Your task to perform on an android device: What is the recent news? Image 0: 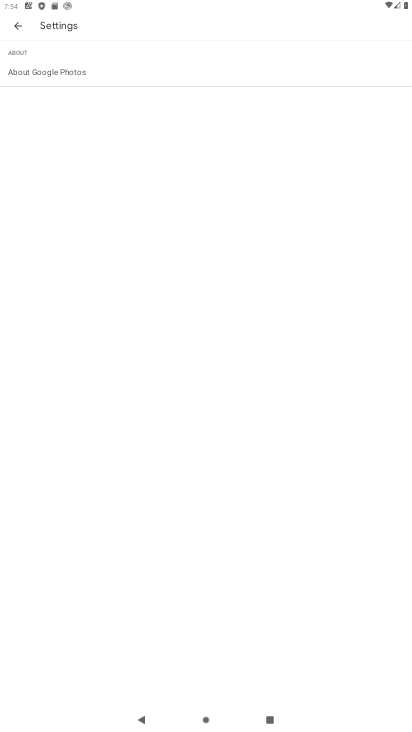
Step 0: click (16, 26)
Your task to perform on an android device: What is the recent news? Image 1: 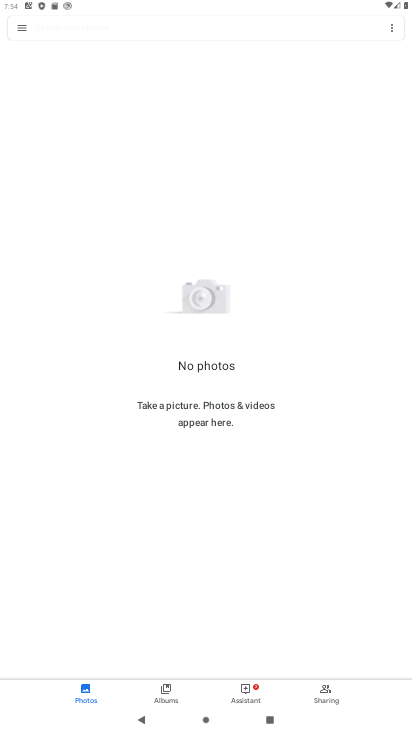
Step 1: click (19, 33)
Your task to perform on an android device: What is the recent news? Image 2: 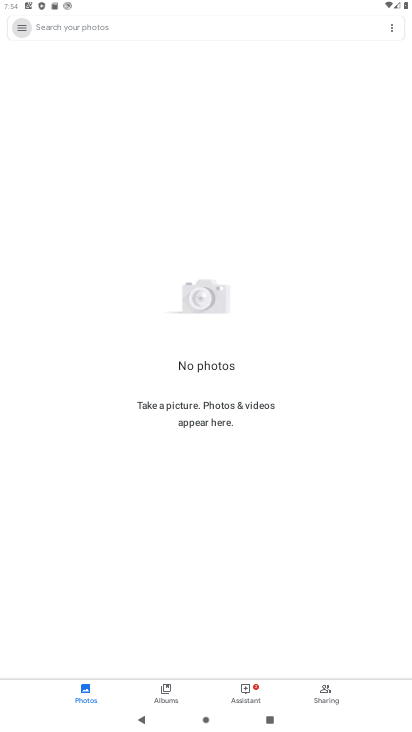
Step 2: click (19, 33)
Your task to perform on an android device: What is the recent news? Image 3: 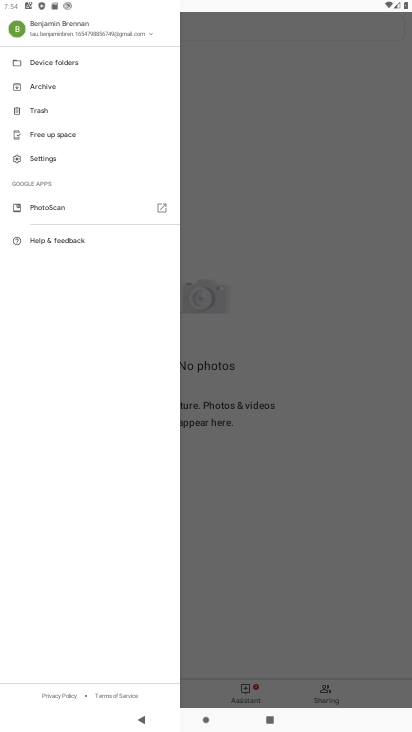
Step 3: press back button
Your task to perform on an android device: What is the recent news? Image 4: 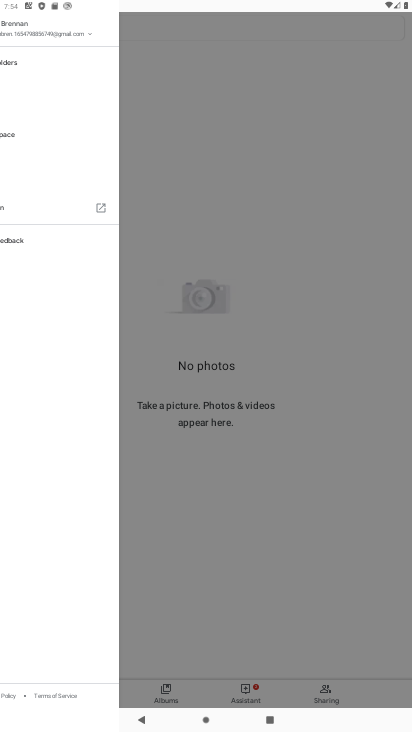
Step 4: press back button
Your task to perform on an android device: What is the recent news? Image 5: 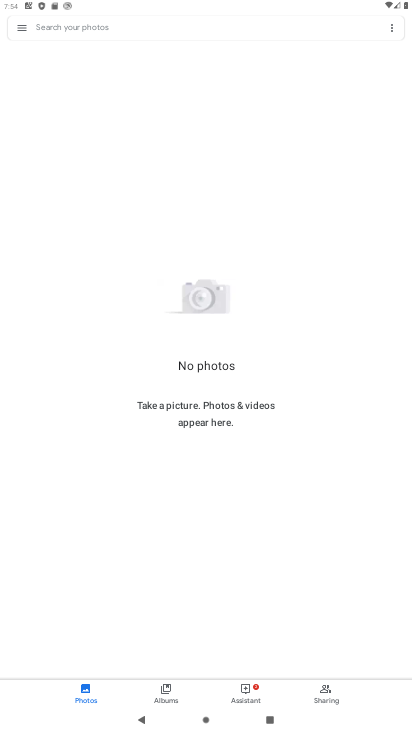
Step 5: press back button
Your task to perform on an android device: What is the recent news? Image 6: 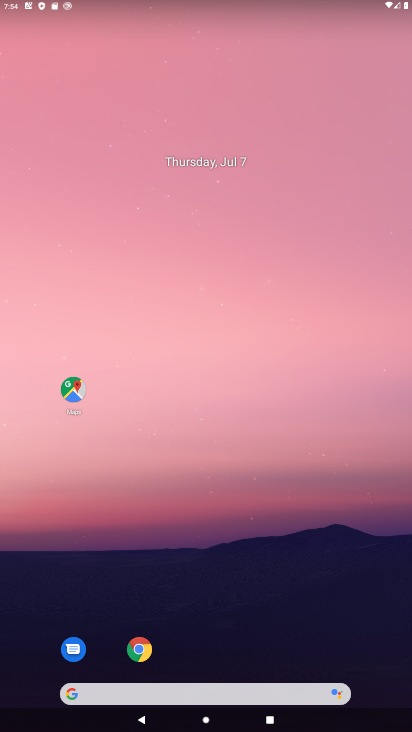
Step 6: drag from (234, 667) to (143, 17)
Your task to perform on an android device: What is the recent news? Image 7: 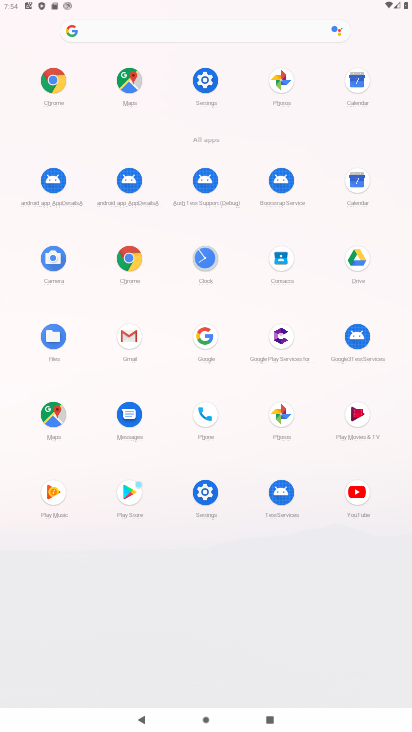
Step 7: click (131, 265)
Your task to perform on an android device: What is the recent news? Image 8: 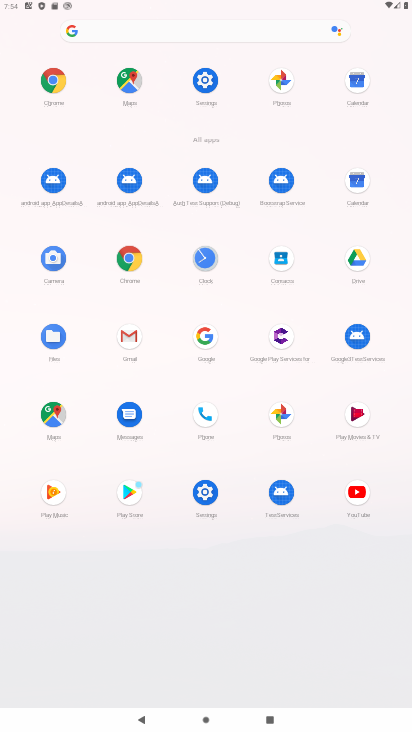
Step 8: click (131, 265)
Your task to perform on an android device: What is the recent news? Image 9: 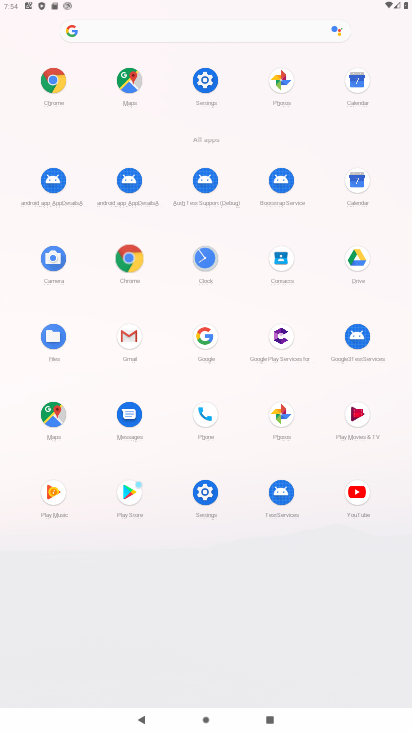
Step 9: click (131, 265)
Your task to perform on an android device: What is the recent news? Image 10: 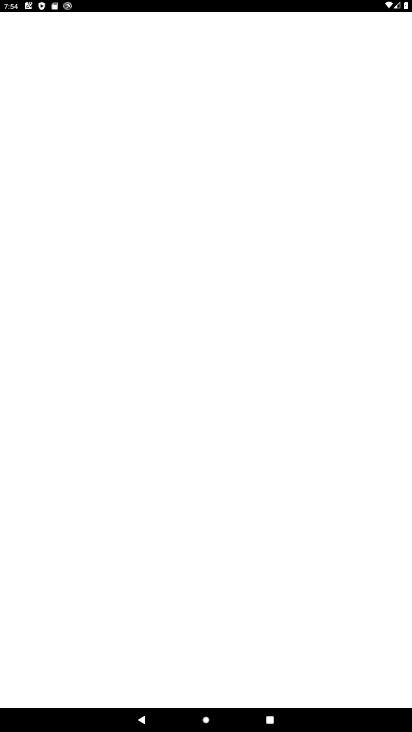
Step 10: click (131, 265)
Your task to perform on an android device: What is the recent news? Image 11: 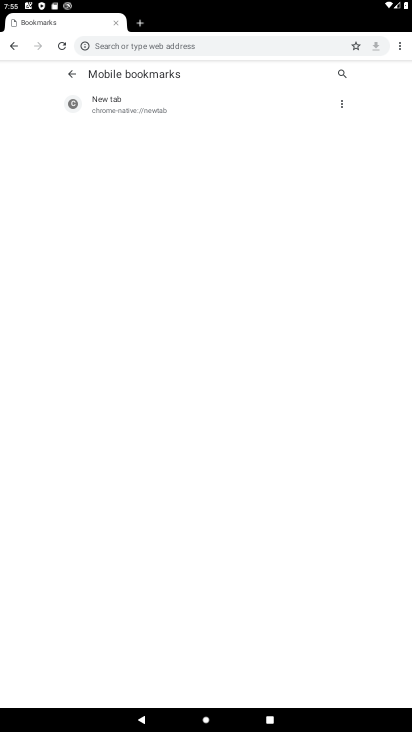
Step 11: click (80, 72)
Your task to perform on an android device: What is the recent news? Image 12: 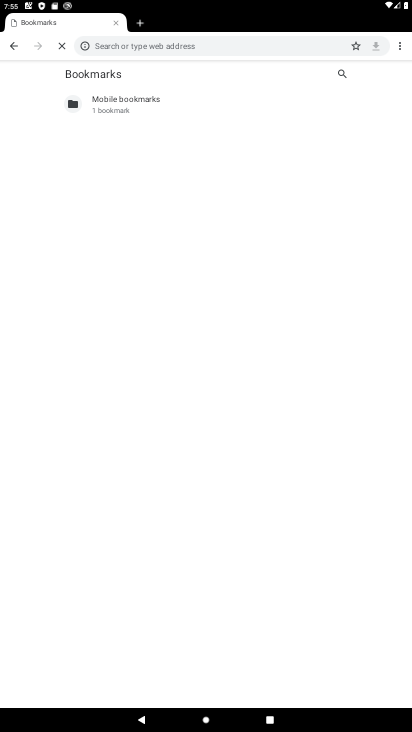
Step 12: click (72, 72)
Your task to perform on an android device: What is the recent news? Image 13: 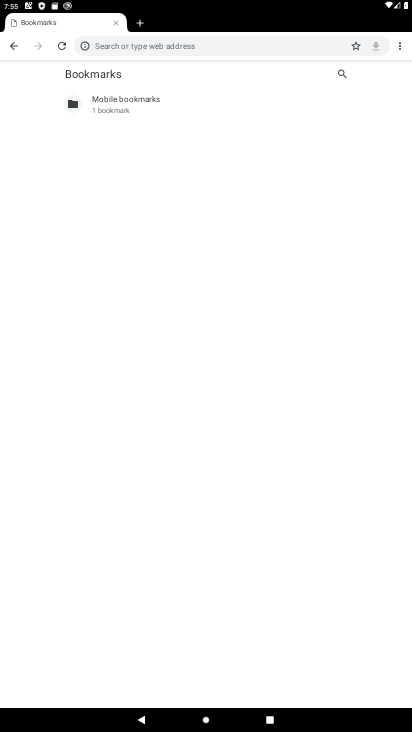
Step 13: drag from (405, 45) to (306, 41)
Your task to perform on an android device: What is the recent news? Image 14: 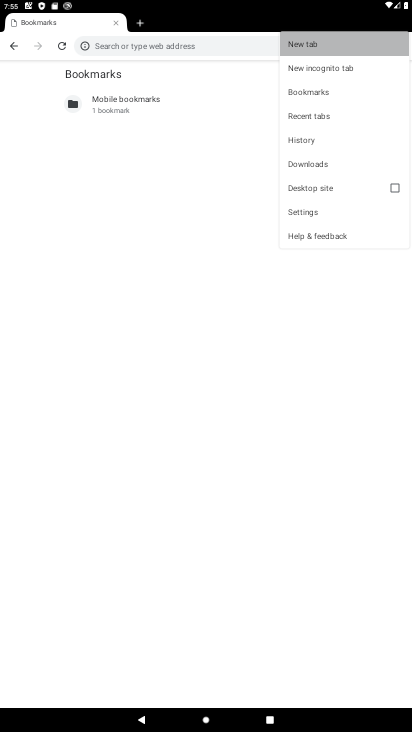
Step 14: click (306, 41)
Your task to perform on an android device: What is the recent news? Image 15: 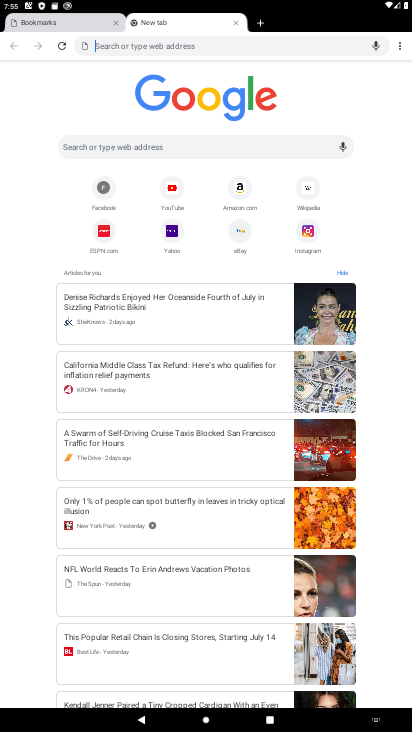
Step 15: task complete